Your task to perform on an android device: install app "The Home Depot" Image 0: 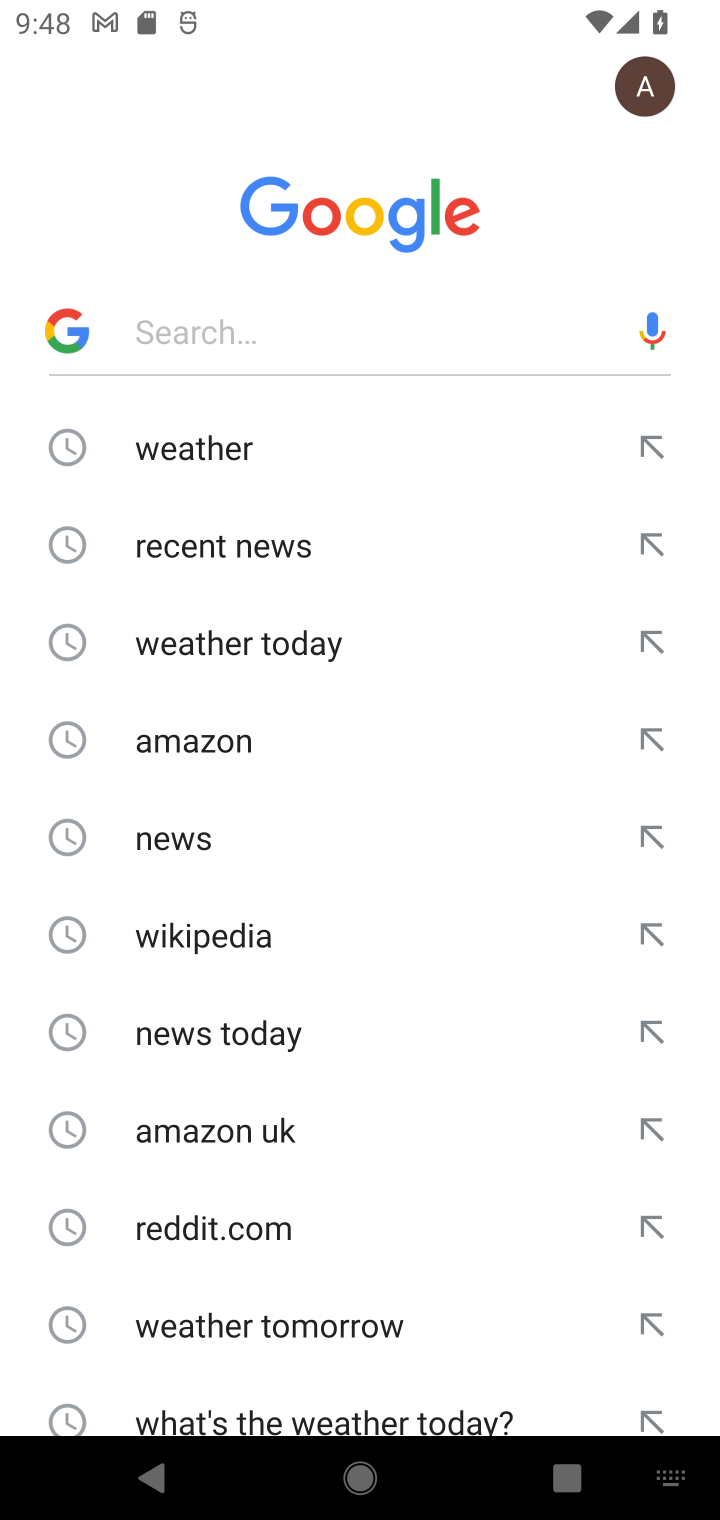
Step 0: press home button
Your task to perform on an android device: install app "The Home Depot" Image 1: 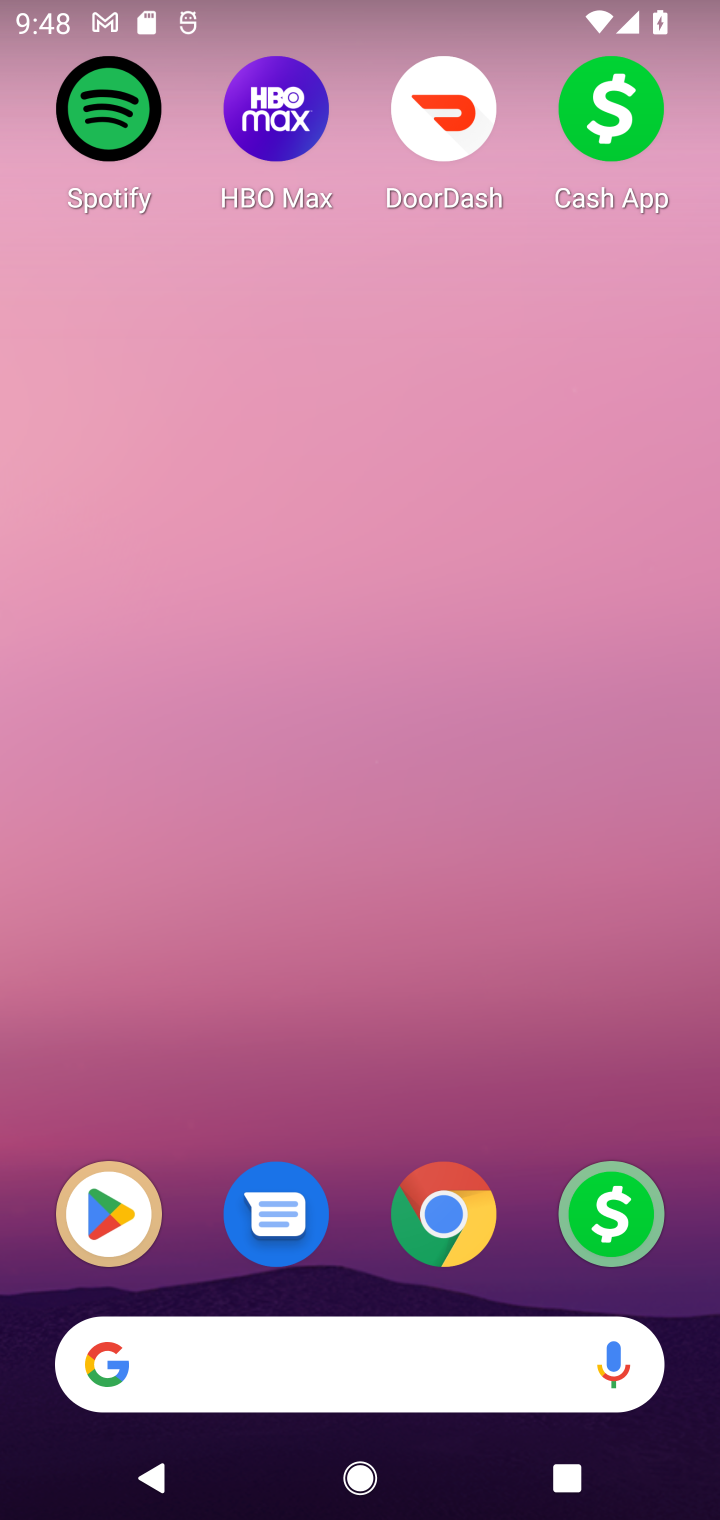
Step 1: click (122, 1201)
Your task to perform on an android device: install app "The Home Depot" Image 2: 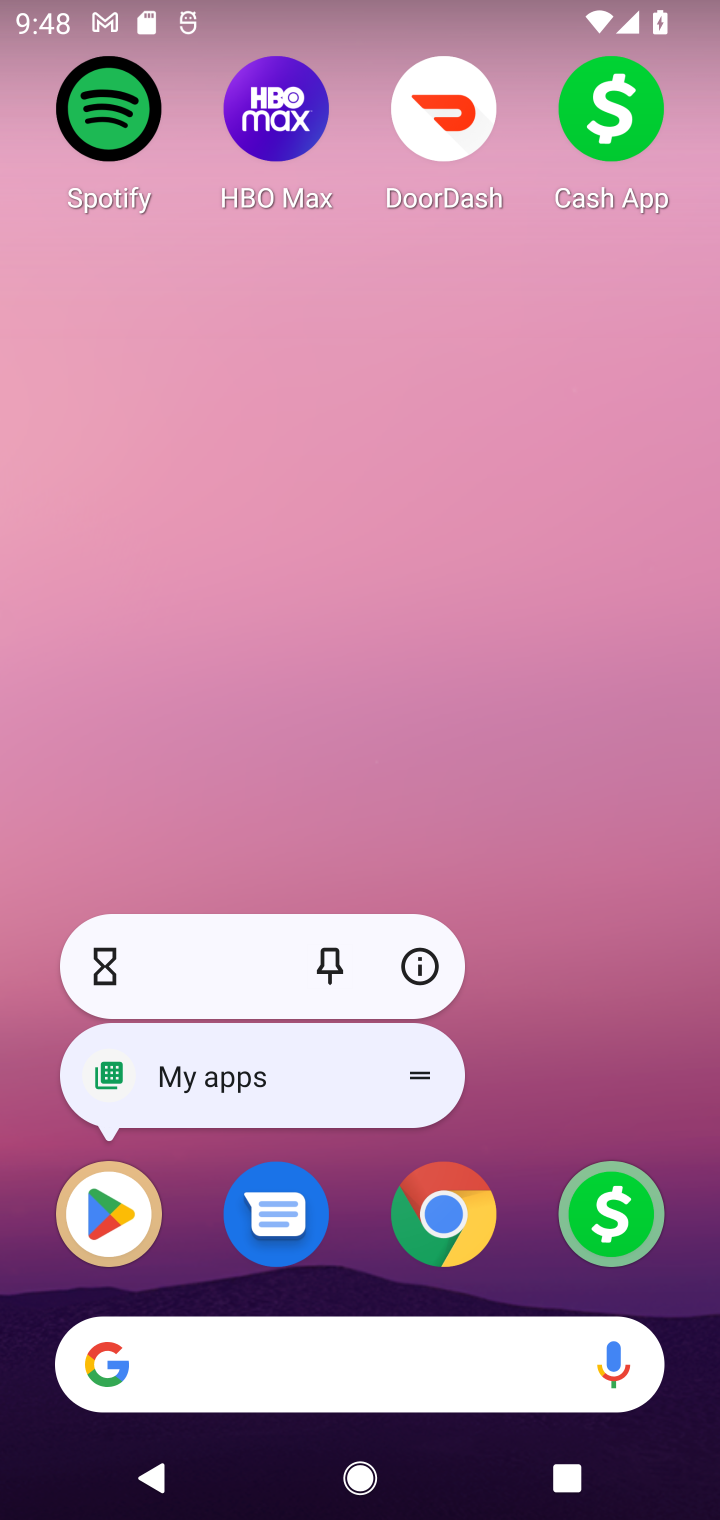
Step 2: click (92, 1221)
Your task to perform on an android device: install app "The Home Depot" Image 3: 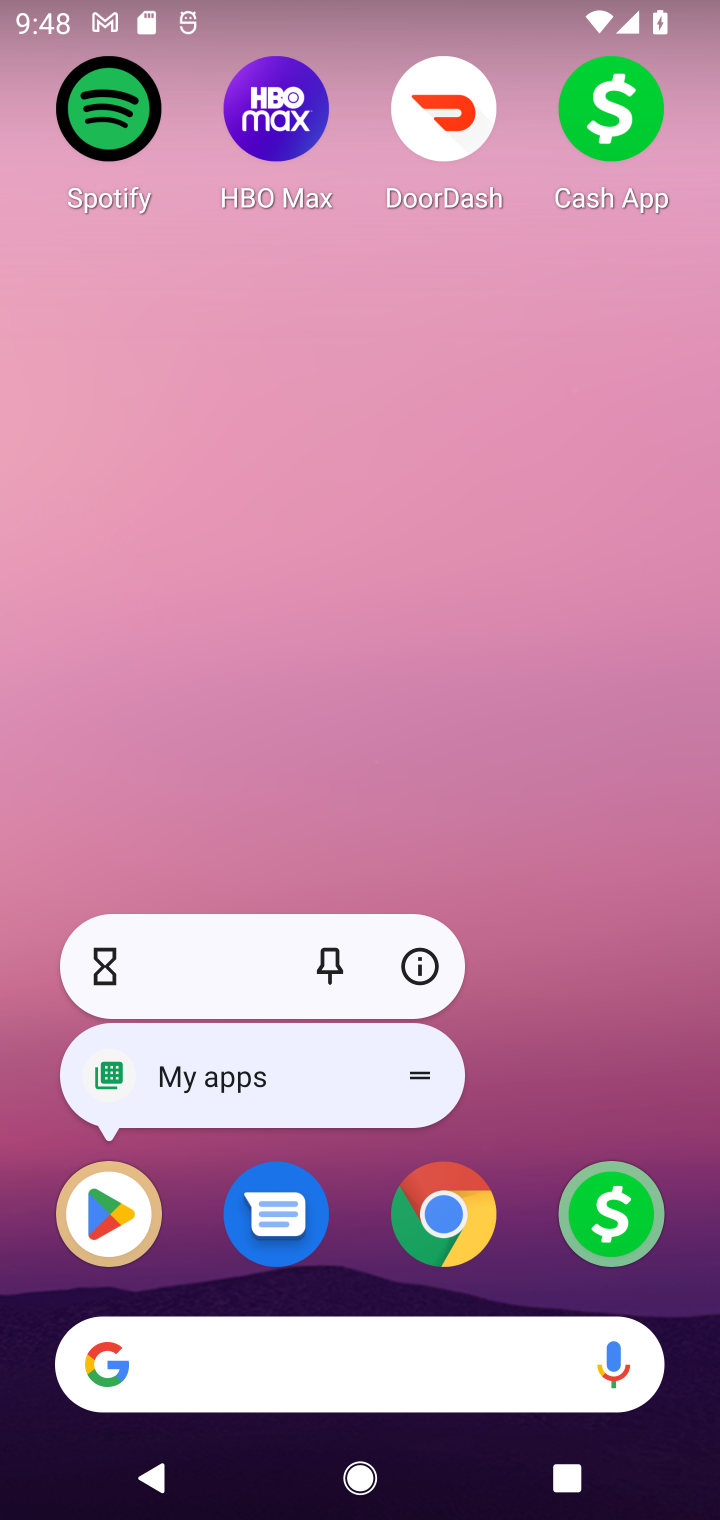
Step 3: click (87, 1230)
Your task to perform on an android device: install app "The Home Depot" Image 4: 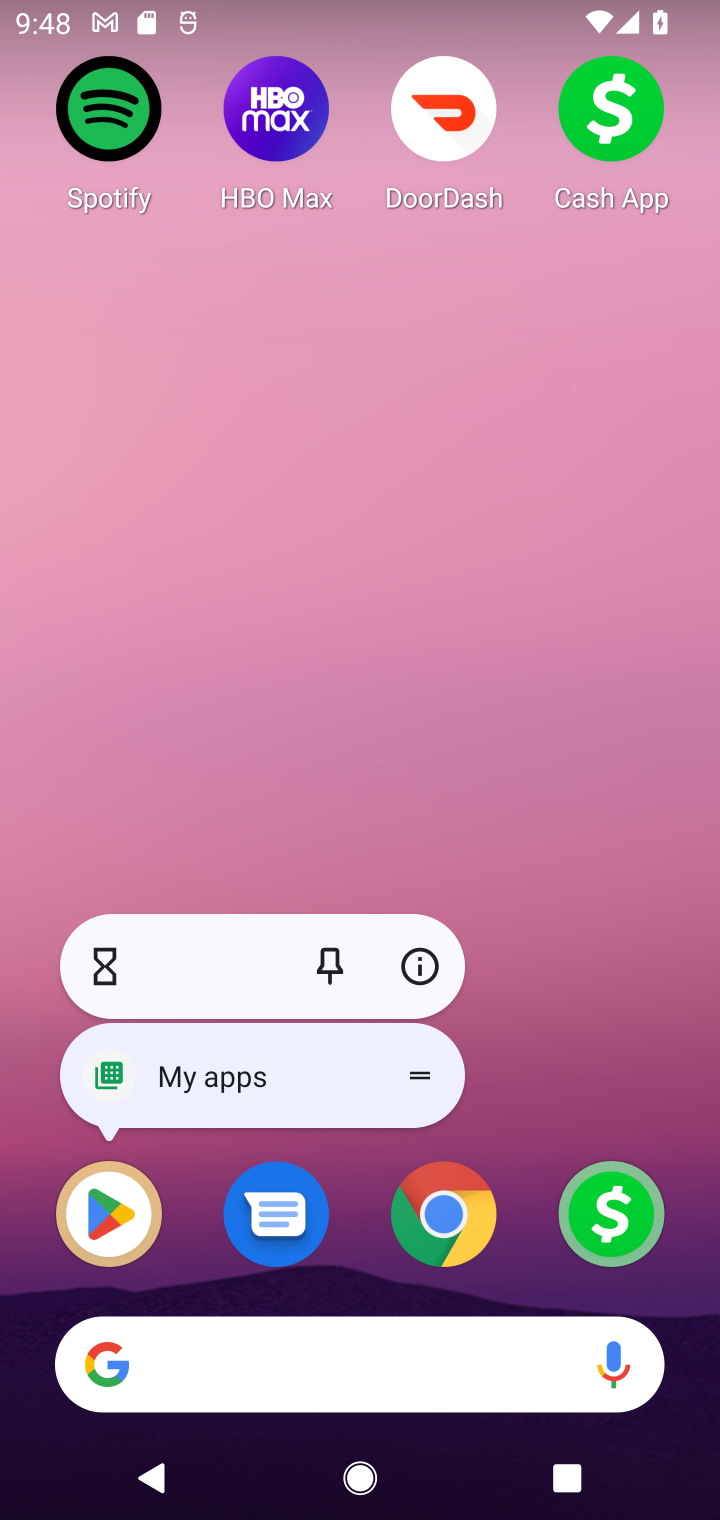
Step 4: click (109, 1210)
Your task to perform on an android device: install app "The Home Depot" Image 5: 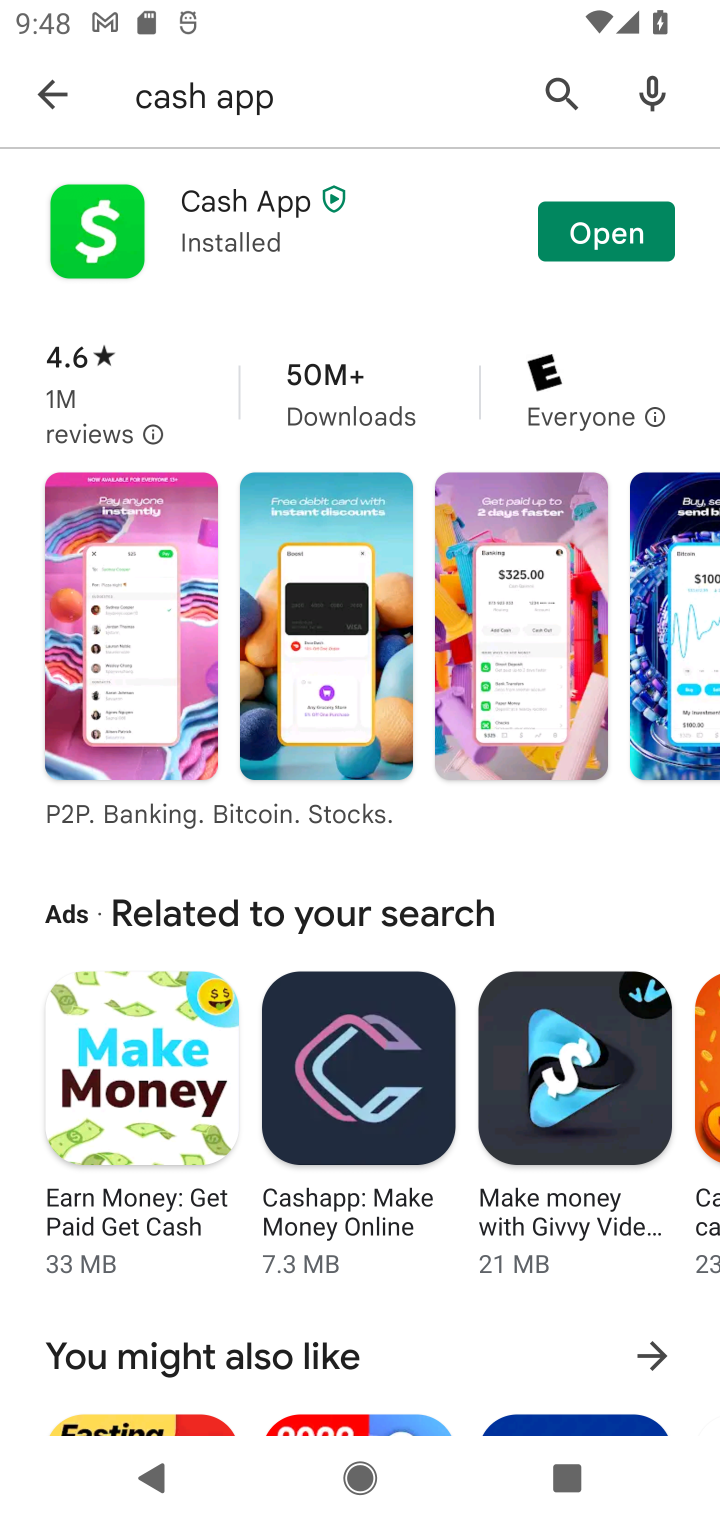
Step 5: click (559, 74)
Your task to perform on an android device: install app "The Home Depot" Image 6: 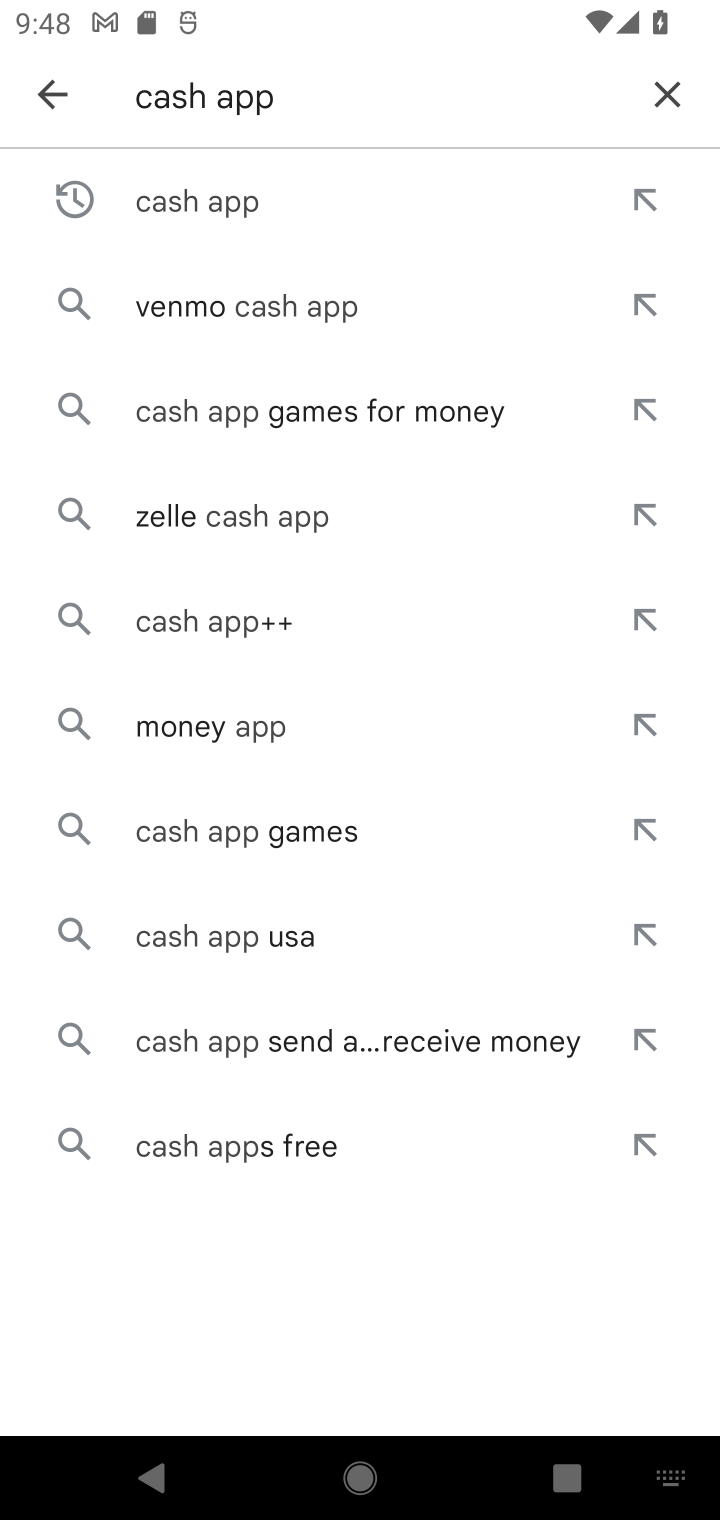
Step 6: click (656, 83)
Your task to perform on an android device: install app "The Home Depot" Image 7: 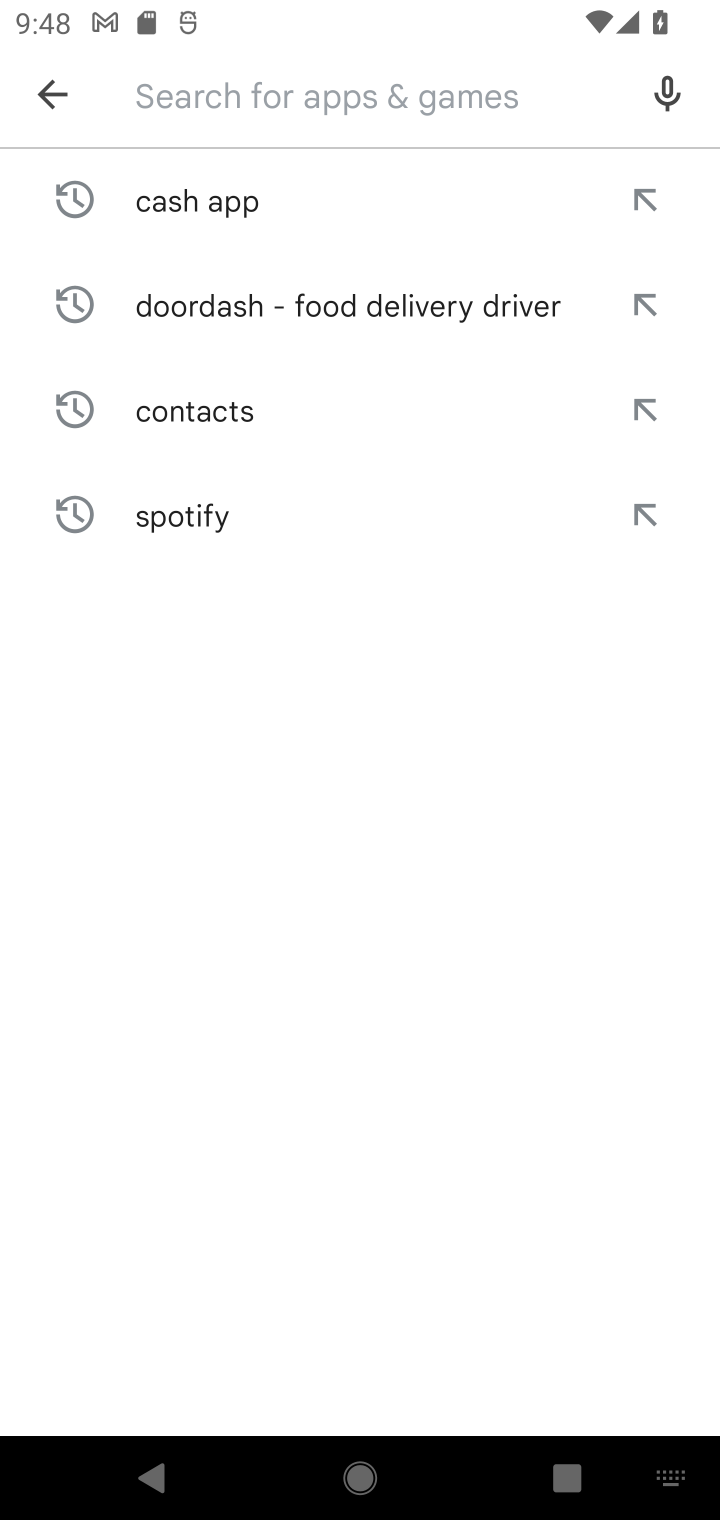
Step 7: type "The Home Depot"
Your task to perform on an android device: install app "The Home Depot" Image 8: 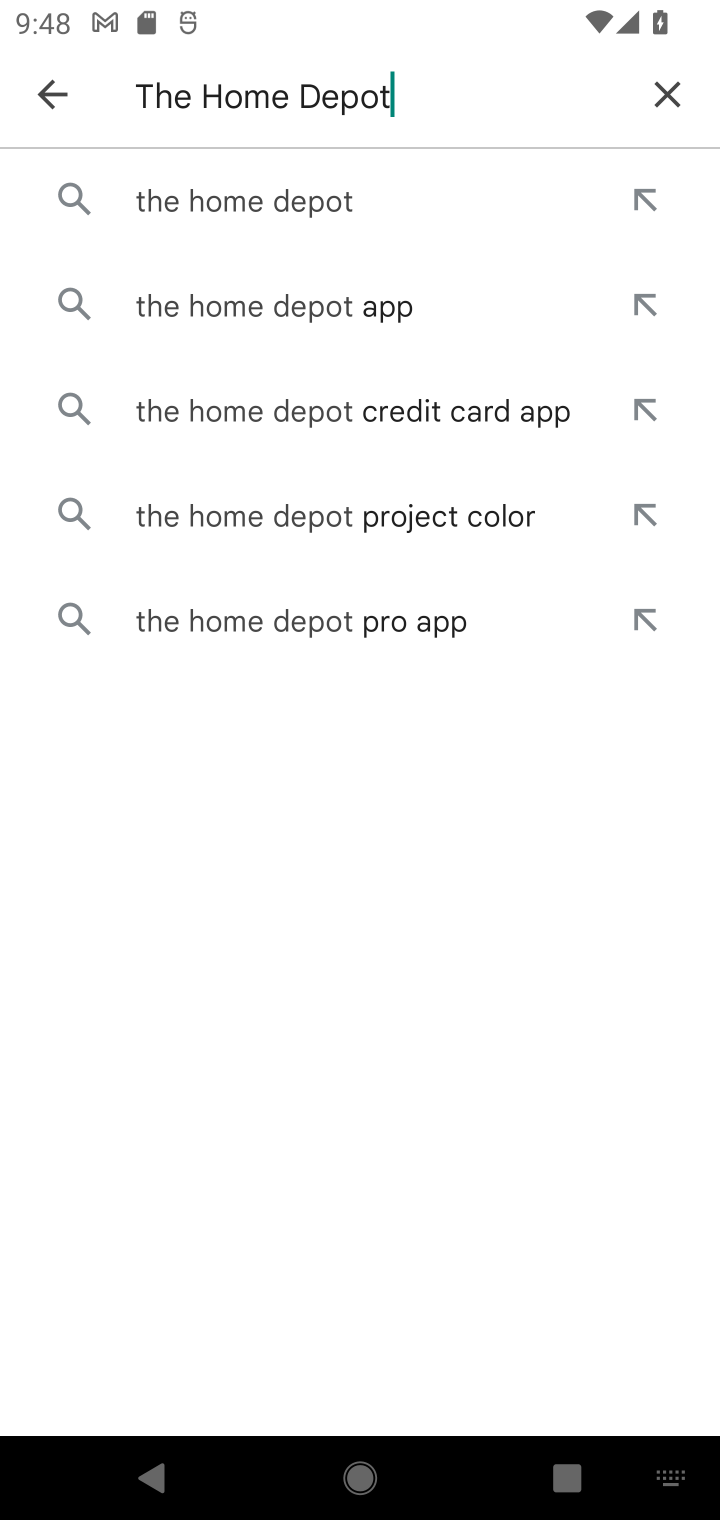
Step 8: click (186, 196)
Your task to perform on an android device: install app "The Home Depot" Image 9: 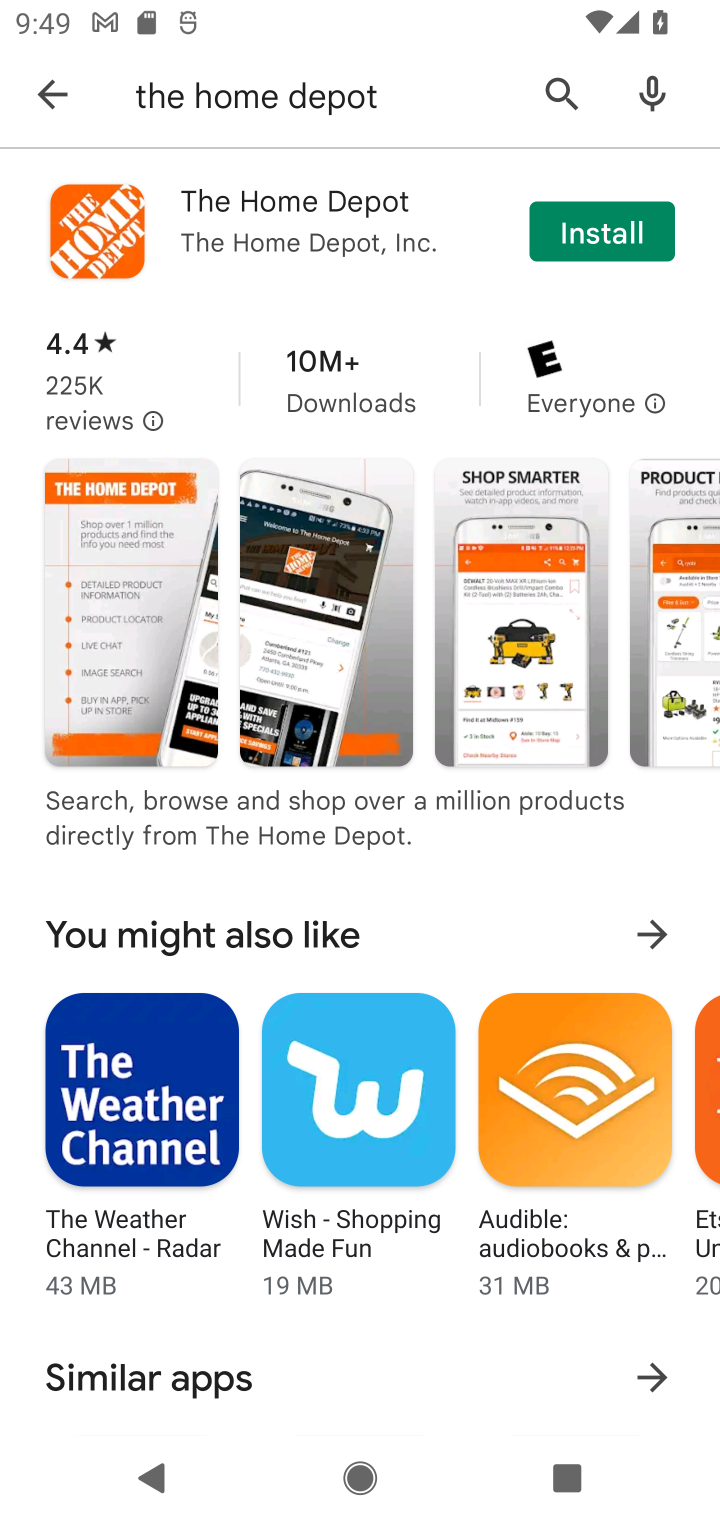
Step 9: click (612, 229)
Your task to perform on an android device: install app "The Home Depot" Image 10: 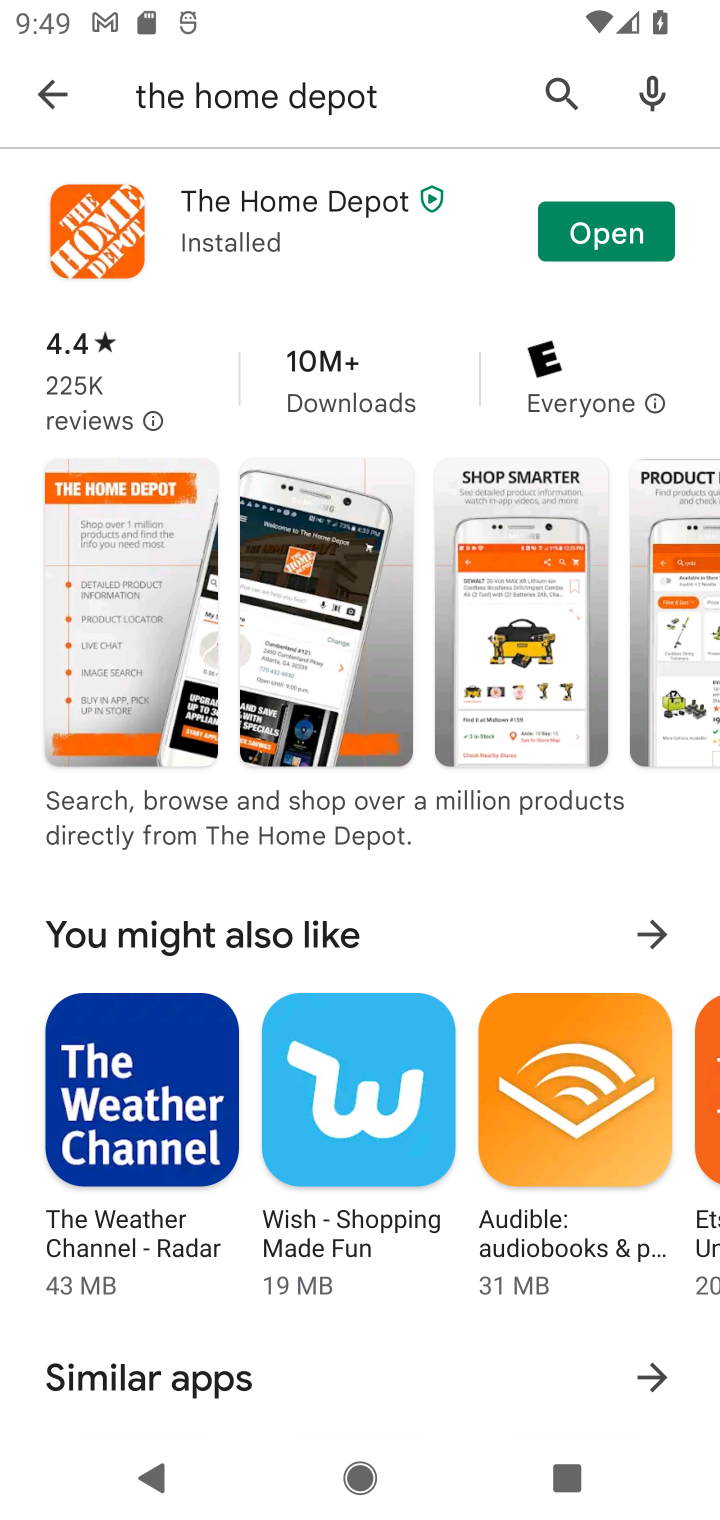
Step 10: task complete